Your task to perform on an android device: Go to wifi settings Image 0: 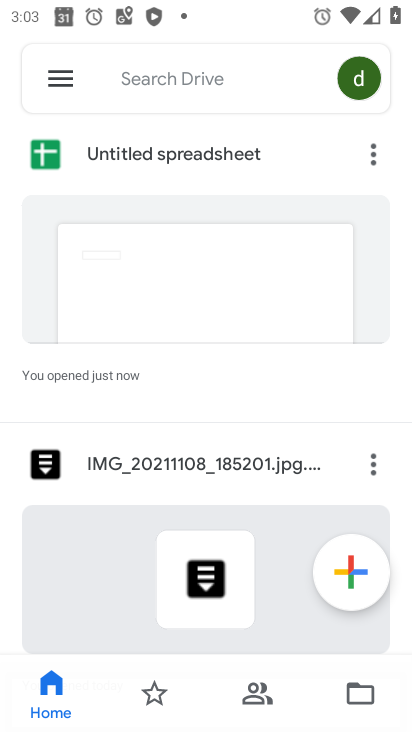
Step 0: press home button
Your task to perform on an android device: Go to wifi settings Image 1: 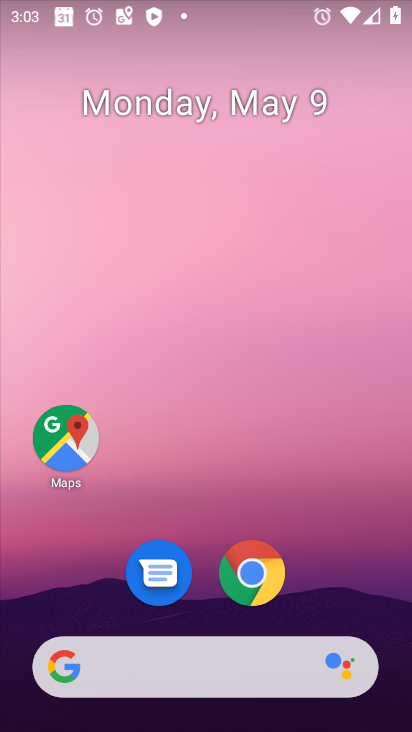
Step 1: drag from (229, 626) to (280, 309)
Your task to perform on an android device: Go to wifi settings Image 2: 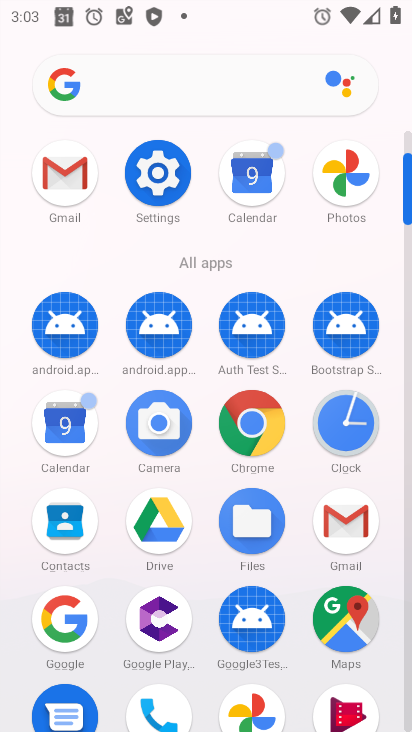
Step 2: click (170, 167)
Your task to perform on an android device: Go to wifi settings Image 3: 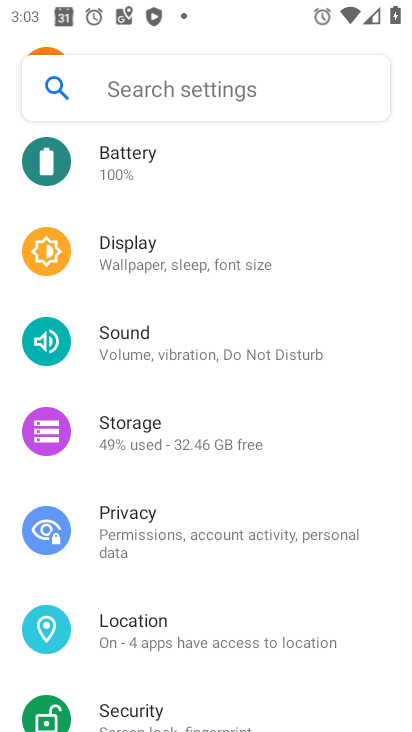
Step 3: drag from (193, 182) to (184, 430)
Your task to perform on an android device: Go to wifi settings Image 4: 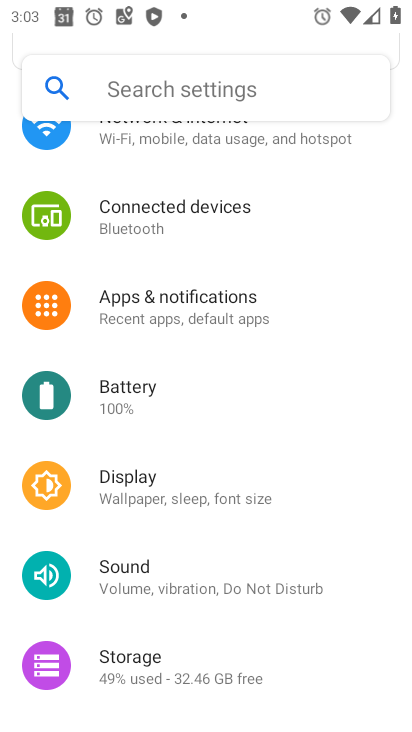
Step 4: drag from (132, 253) to (197, 496)
Your task to perform on an android device: Go to wifi settings Image 5: 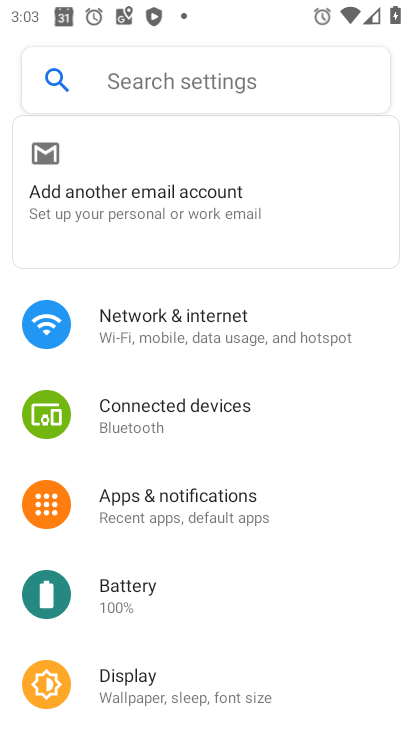
Step 5: click (191, 317)
Your task to perform on an android device: Go to wifi settings Image 6: 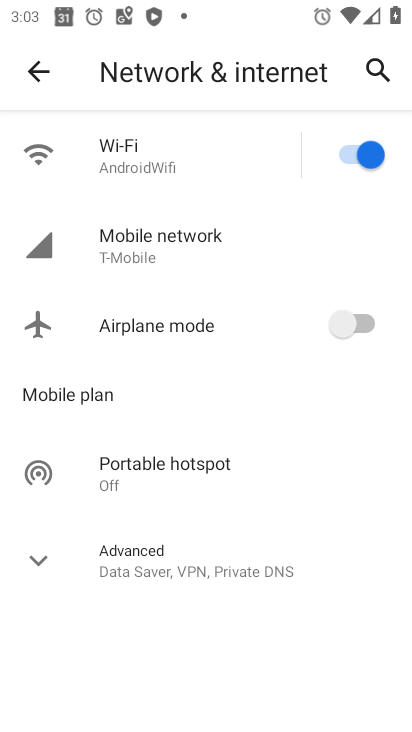
Step 6: click (125, 161)
Your task to perform on an android device: Go to wifi settings Image 7: 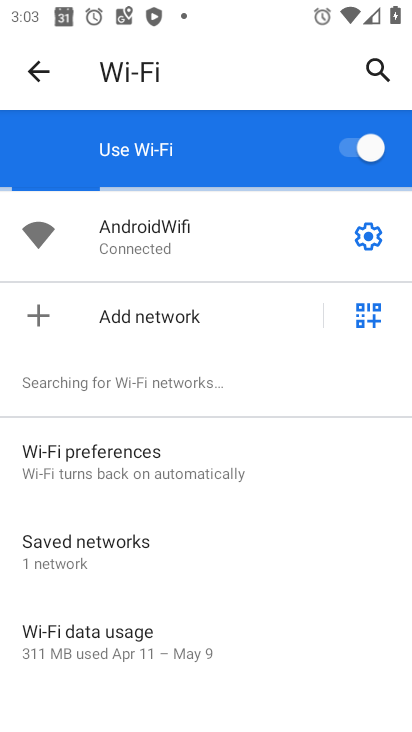
Step 7: click (361, 228)
Your task to perform on an android device: Go to wifi settings Image 8: 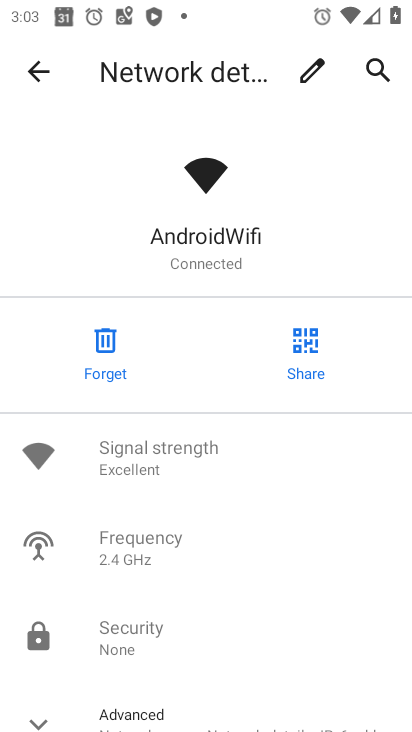
Step 8: drag from (248, 663) to (241, 495)
Your task to perform on an android device: Go to wifi settings Image 9: 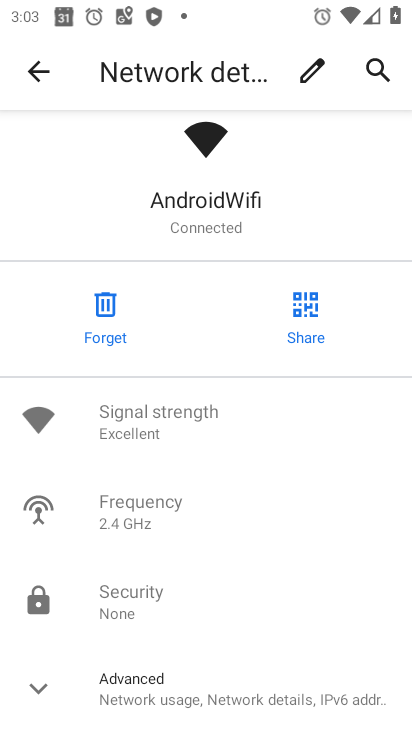
Step 9: click (121, 703)
Your task to perform on an android device: Go to wifi settings Image 10: 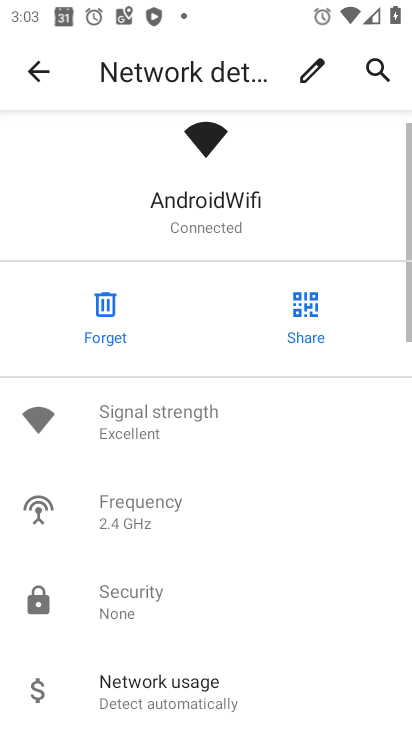
Step 10: task complete